Your task to perform on an android device: move an email to a new category in the gmail app Image 0: 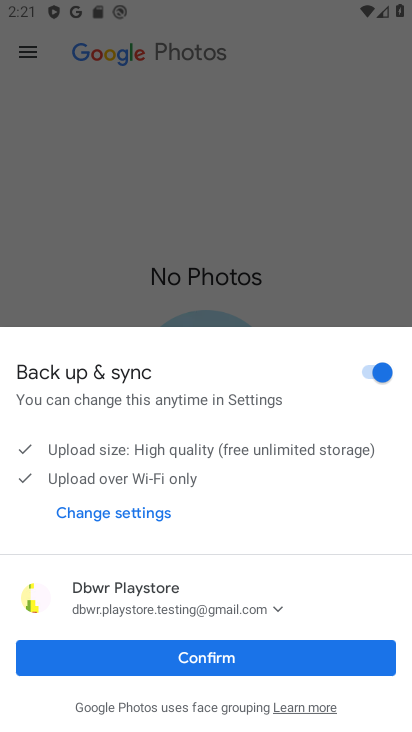
Step 0: press home button
Your task to perform on an android device: move an email to a new category in the gmail app Image 1: 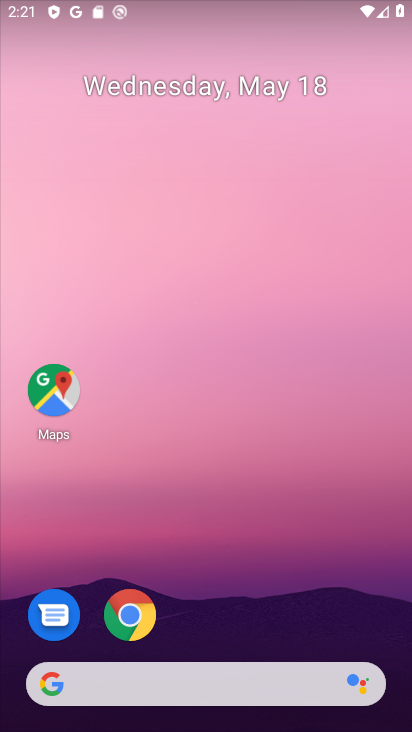
Step 1: drag from (176, 636) to (152, 315)
Your task to perform on an android device: move an email to a new category in the gmail app Image 2: 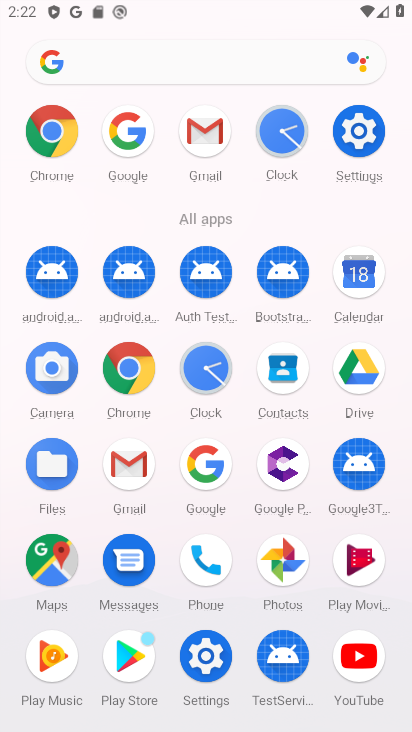
Step 2: click (125, 464)
Your task to perform on an android device: move an email to a new category in the gmail app Image 3: 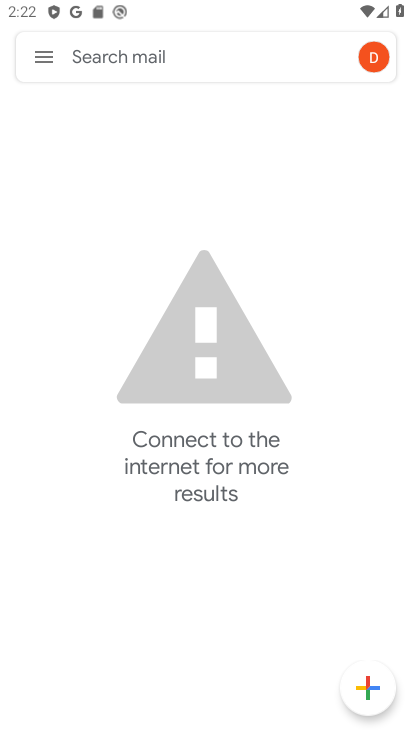
Step 3: click (29, 60)
Your task to perform on an android device: move an email to a new category in the gmail app Image 4: 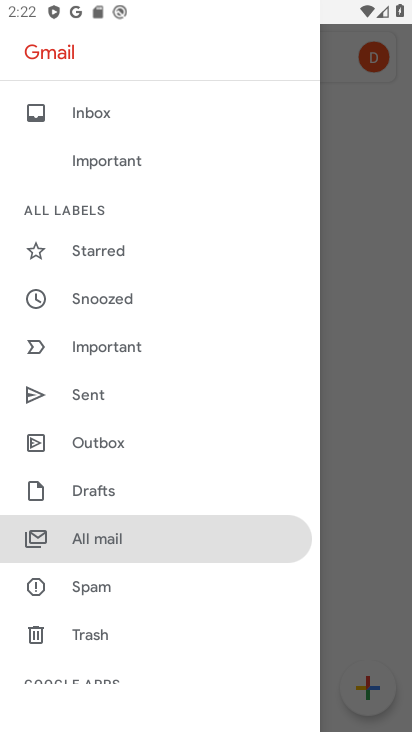
Step 4: click (149, 531)
Your task to perform on an android device: move an email to a new category in the gmail app Image 5: 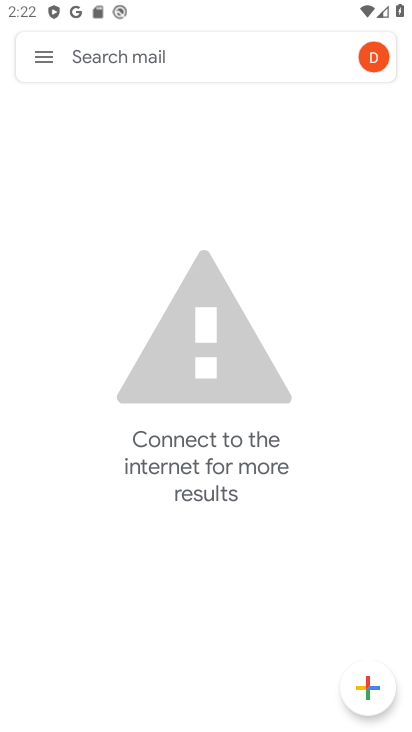
Step 5: task complete